Your task to perform on an android device: turn off data saver in the chrome app Image 0: 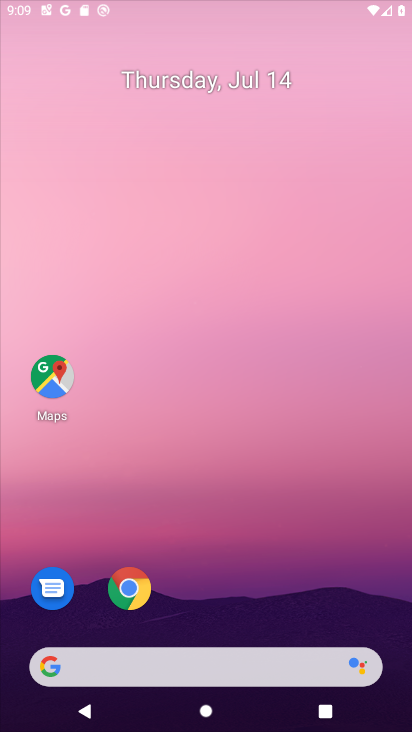
Step 0: drag from (276, 589) to (232, 25)
Your task to perform on an android device: turn off data saver in the chrome app Image 1: 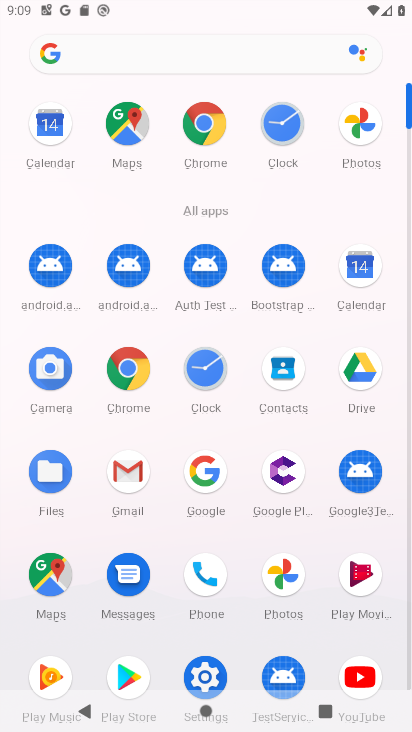
Step 1: click (202, 122)
Your task to perform on an android device: turn off data saver in the chrome app Image 2: 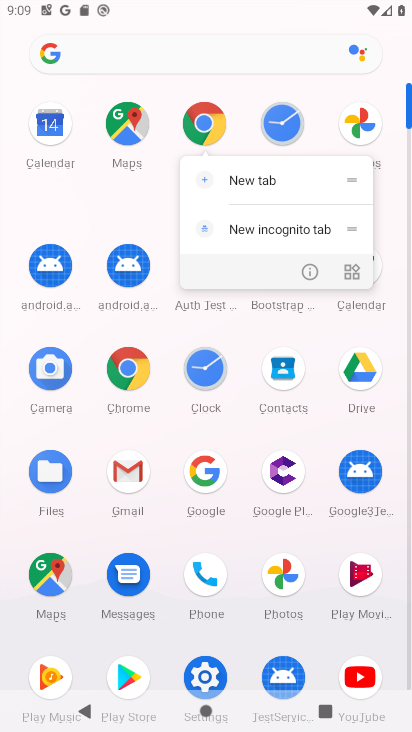
Step 2: click (199, 678)
Your task to perform on an android device: turn off data saver in the chrome app Image 3: 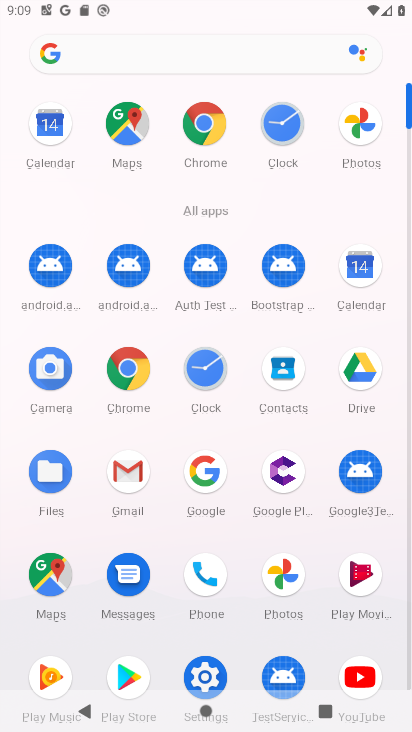
Step 3: click (198, 122)
Your task to perform on an android device: turn off data saver in the chrome app Image 4: 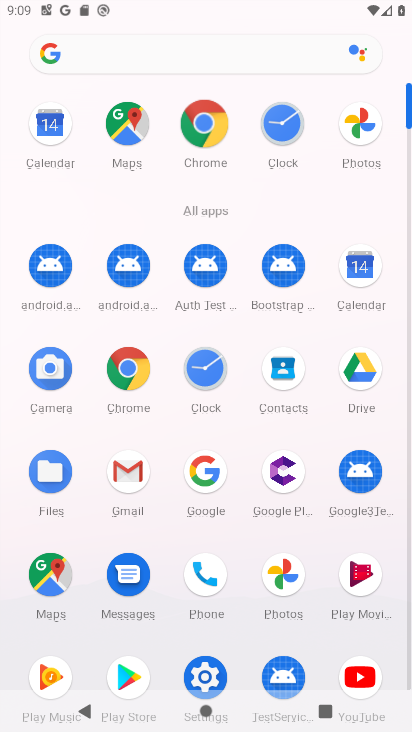
Step 4: click (201, 119)
Your task to perform on an android device: turn off data saver in the chrome app Image 5: 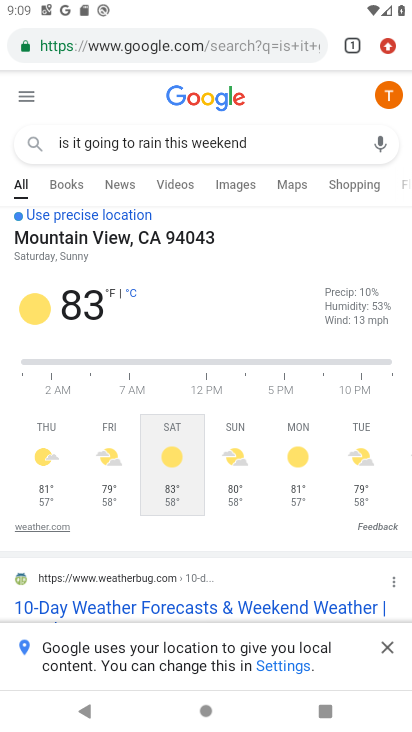
Step 5: press back button
Your task to perform on an android device: turn off data saver in the chrome app Image 6: 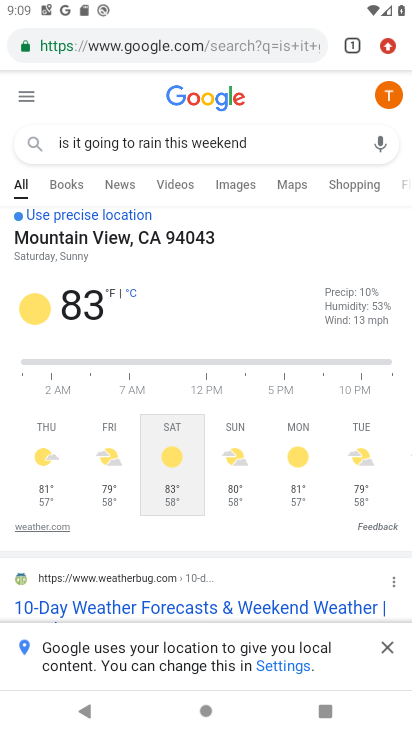
Step 6: press back button
Your task to perform on an android device: turn off data saver in the chrome app Image 7: 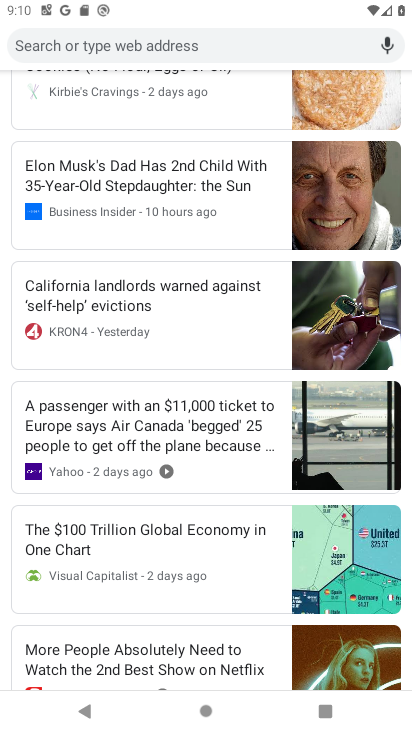
Step 7: drag from (283, 195) to (258, 607)
Your task to perform on an android device: turn off data saver in the chrome app Image 8: 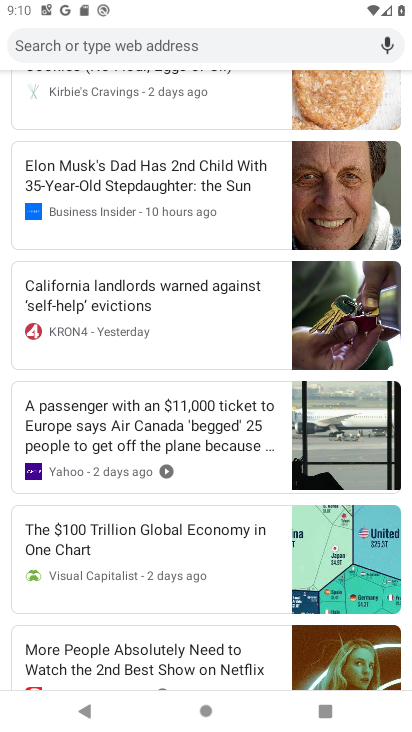
Step 8: drag from (179, 316) to (179, 636)
Your task to perform on an android device: turn off data saver in the chrome app Image 9: 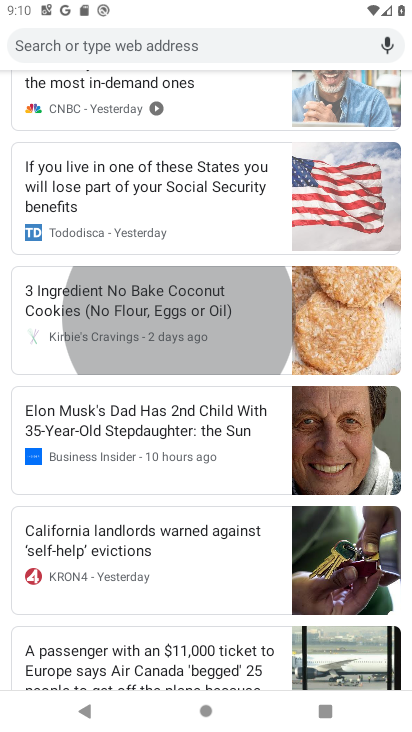
Step 9: drag from (125, 315) to (156, 513)
Your task to perform on an android device: turn off data saver in the chrome app Image 10: 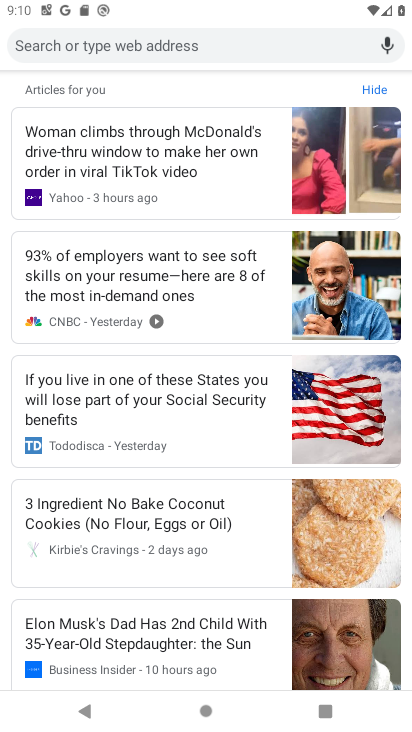
Step 10: drag from (259, 104) to (215, 467)
Your task to perform on an android device: turn off data saver in the chrome app Image 11: 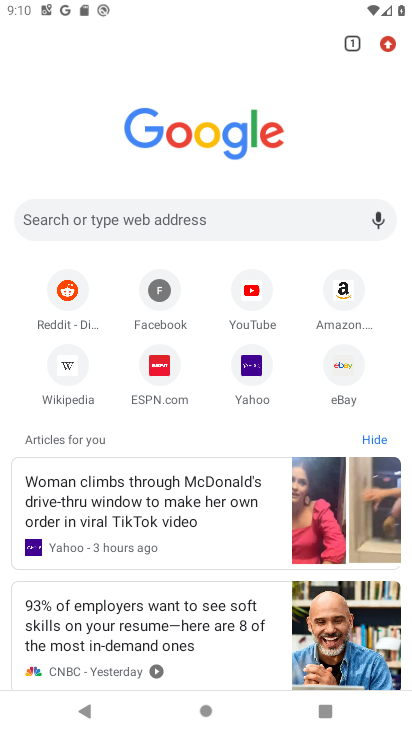
Step 11: drag from (172, 204) to (183, 524)
Your task to perform on an android device: turn off data saver in the chrome app Image 12: 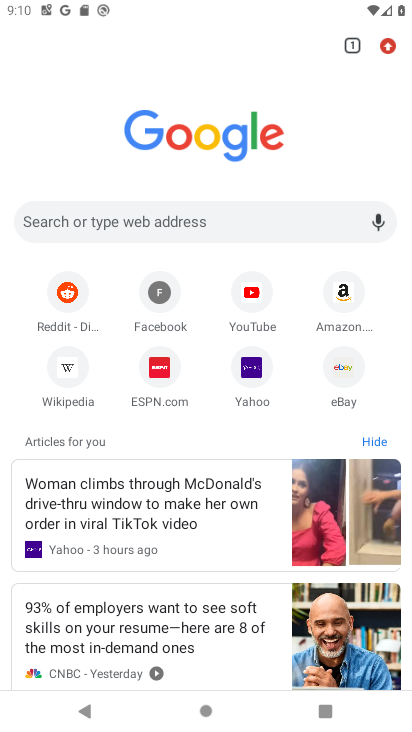
Step 12: drag from (192, 125) to (202, 621)
Your task to perform on an android device: turn off data saver in the chrome app Image 13: 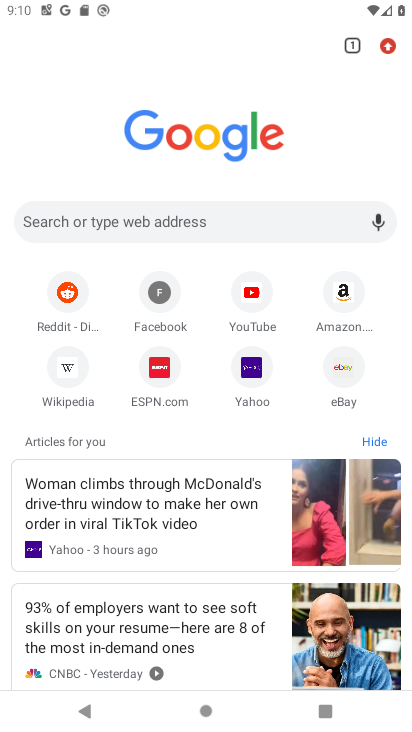
Step 13: click (383, 40)
Your task to perform on an android device: turn off data saver in the chrome app Image 14: 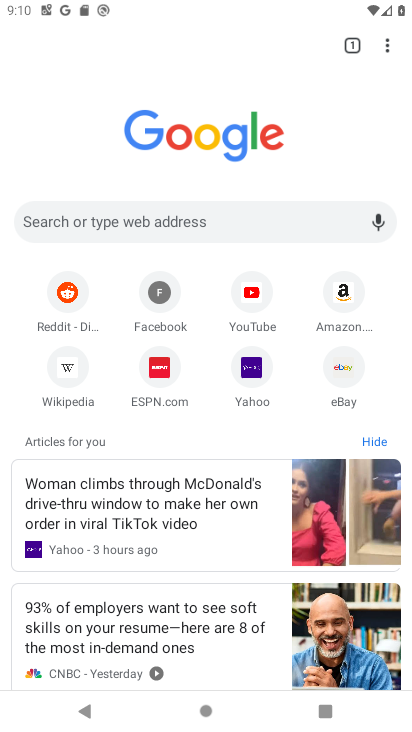
Step 14: drag from (392, 37) to (218, 443)
Your task to perform on an android device: turn off data saver in the chrome app Image 15: 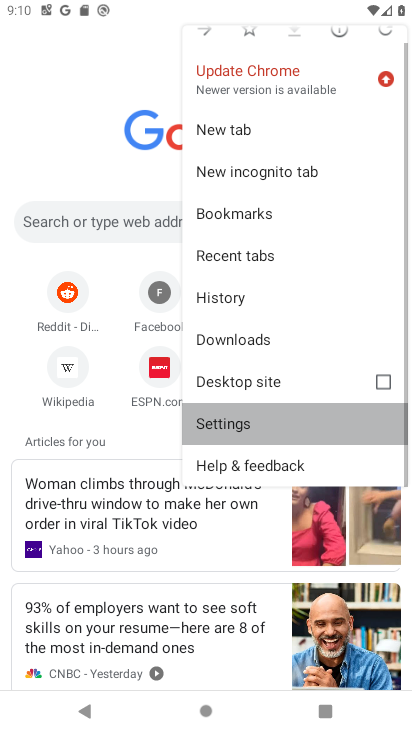
Step 15: click (218, 443)
Your task to perform on an android device: turn off data saver in the chrome app Image 16: 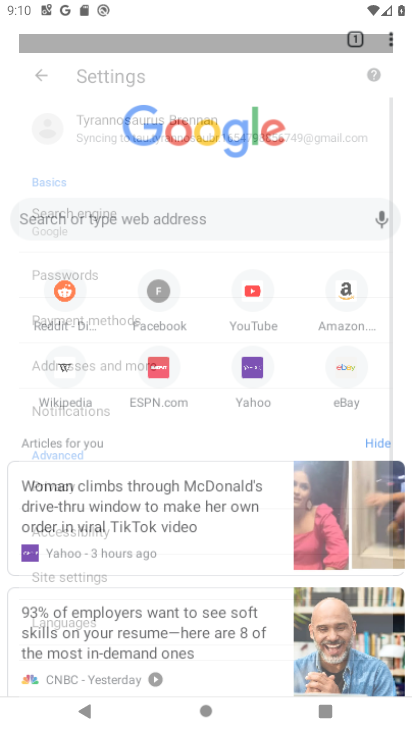
Step 16: click (230, 409)
Your task to perform on an android device: turn off data saver in the chrome app Image 17: 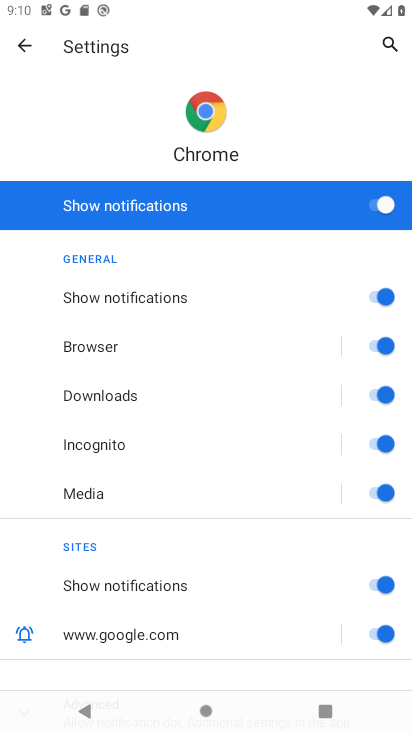
Step 17: click (16, 49)
Your task to perform on an android device: turn off data saver in the chrome app Image 18: 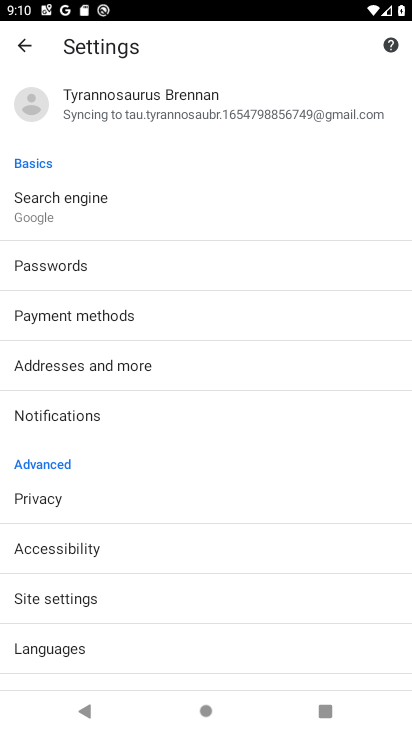
Step 18: drag from (56, 615) to (63, 324)
Your task to perform on an android device: turn off data saver in the chrome app Image 19: 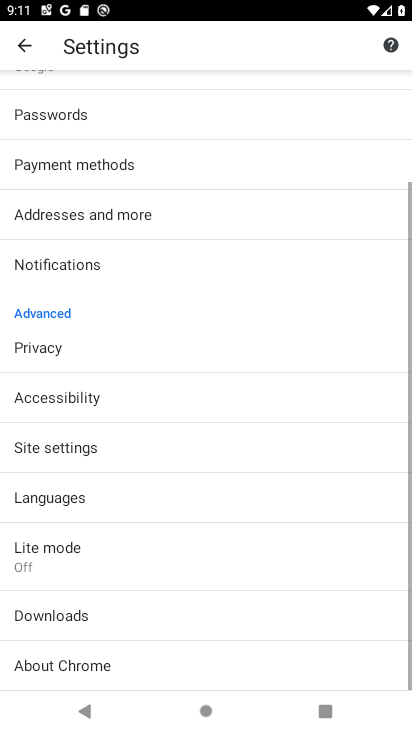
Step 19: drag from (92, 527) to (99, 357)
Your task to perform on an android device: turn off data saver in the chrome app Image 20: 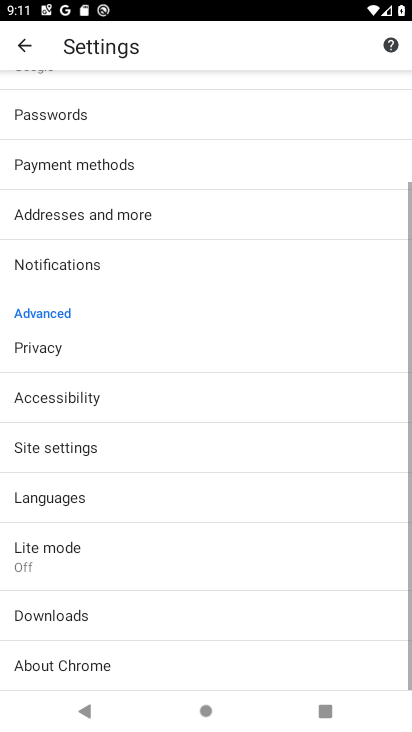
Step 20: click (46, 537)
Your task to perform on an android device: turn off data saver in the chrome app Image 21: 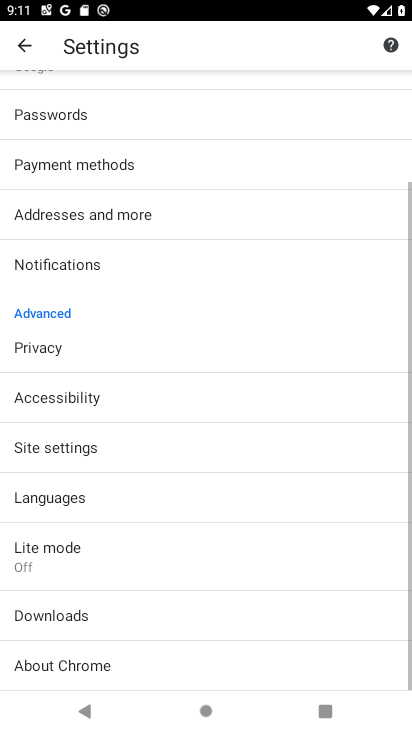
Step 21: click (45, 541)
Your task to perform on an android device: turn off data saver in the chrome app Image 22: 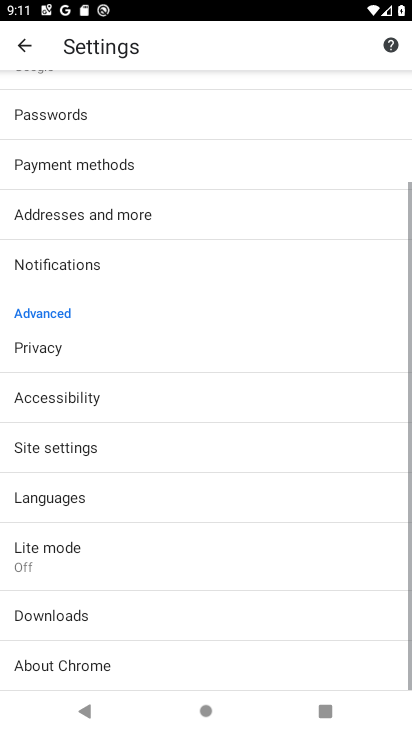
Step 22: click (47, 544)
Your task to perform on an android device: turn off data saver in the chrome app Image 23: 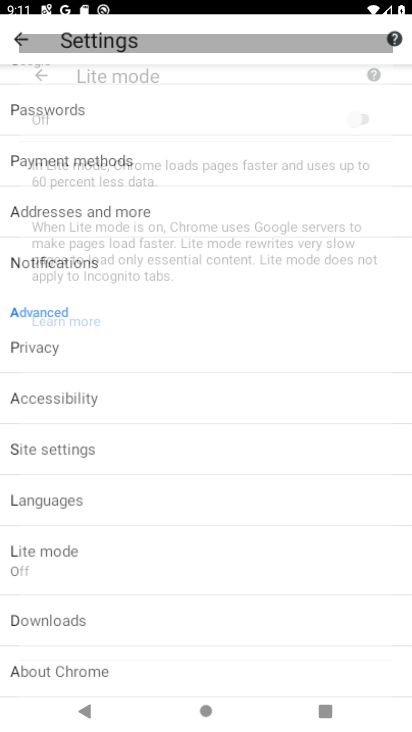
Step 23: click (47, 545)
Your task to perform on an android device: turn off data saver in the chrome app Image 24: 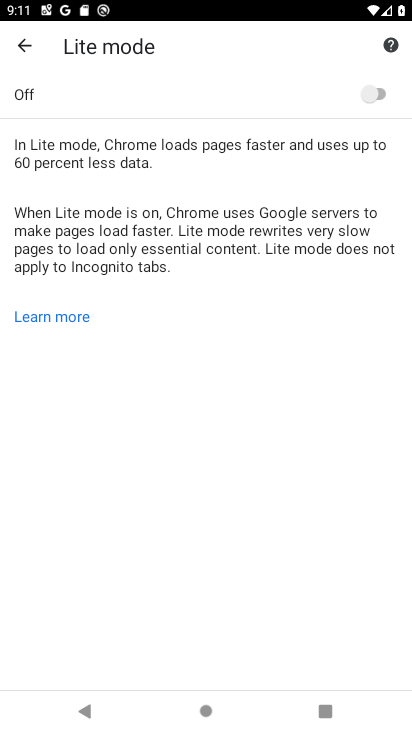
Step 24: task complete